Your task to perform on an android device: Clear the shopping cart on newegg.com. Add "macbook pro" to the cart on newegg.com Image 0: 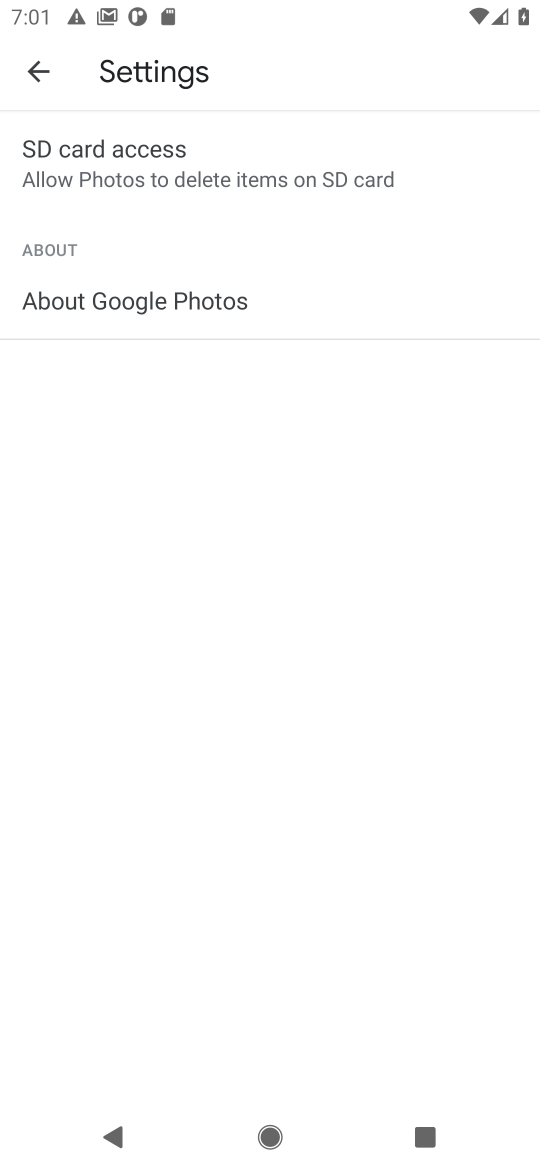
Step 0: press home button
Your task to perform on an android device: Clear the shopping cart on newegg.com. Add "macbook pro" to the cart on newegg.com Image 1: 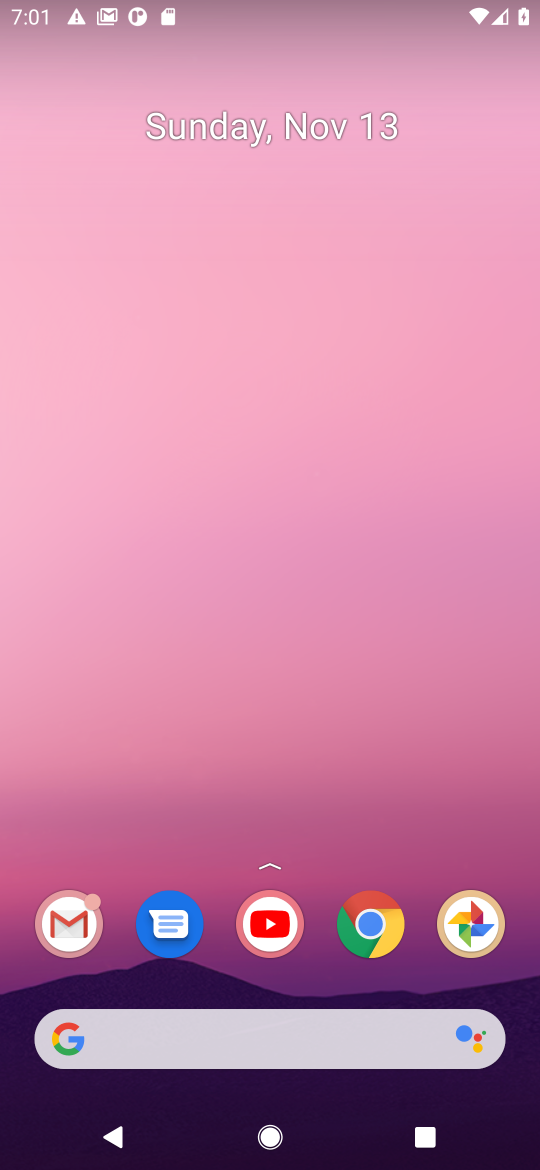
Step 1: click (373, 936)
Your task to perform on an android device: Clear the shopping cart on newegg.com. Add "macbook pro" to the cart on newegg.com Image 2: 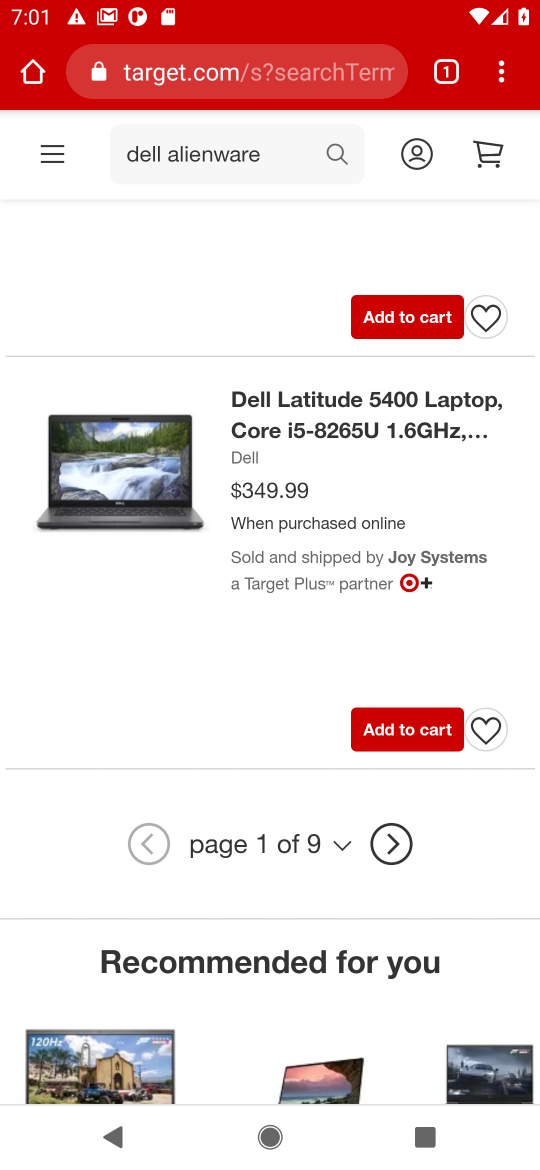
Step 2: click (219, 82)
Your task to perform on an android device: Clear the shopping cart on newegg.com. Add "macbook pro" to the cart on newegg.com Image 3: 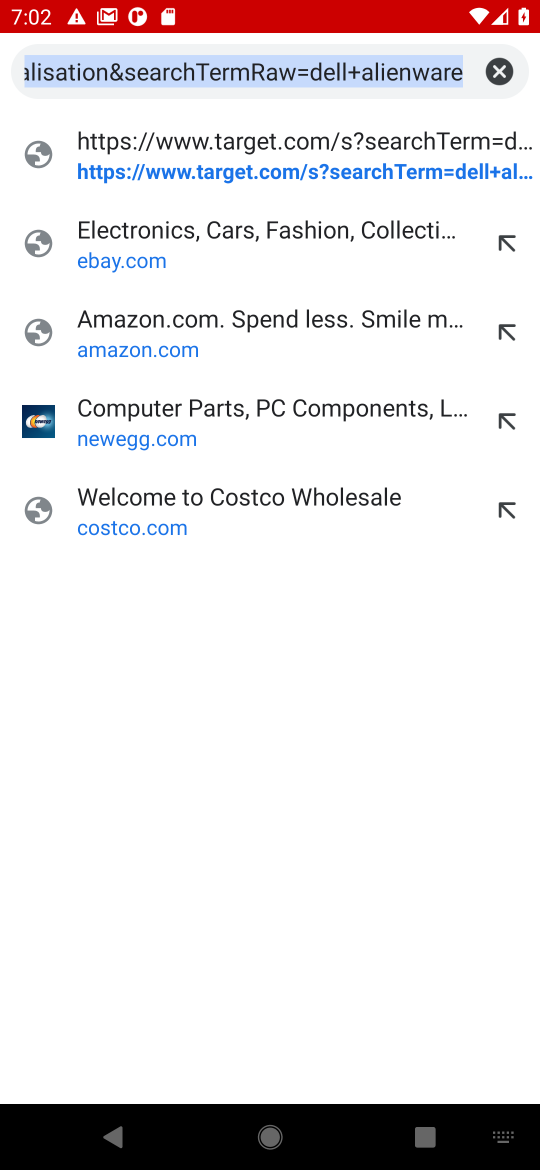
Step 3: click (120, 441)
Your task to perform on an android device: Clear the shopping cart on newegg.com. Add "macbook pro" to the cart on newegg.com Image 4: 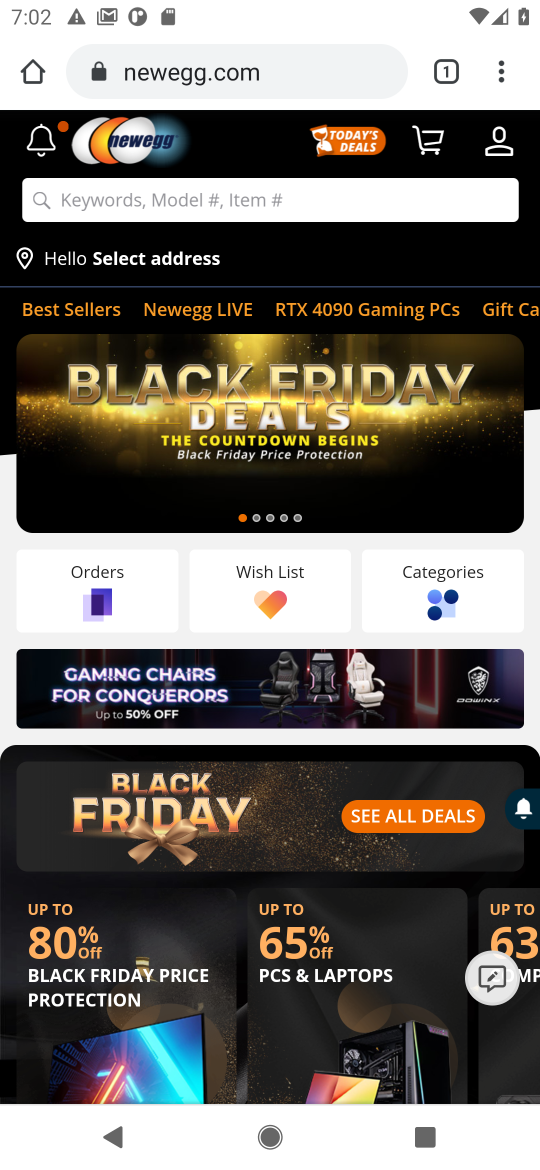
Step 4: click (429, 151)
Your task to perform on an android device: Clear the shopping cart on newegg.com. Add "macbook pro" to the cart on newegg.com Image 5: 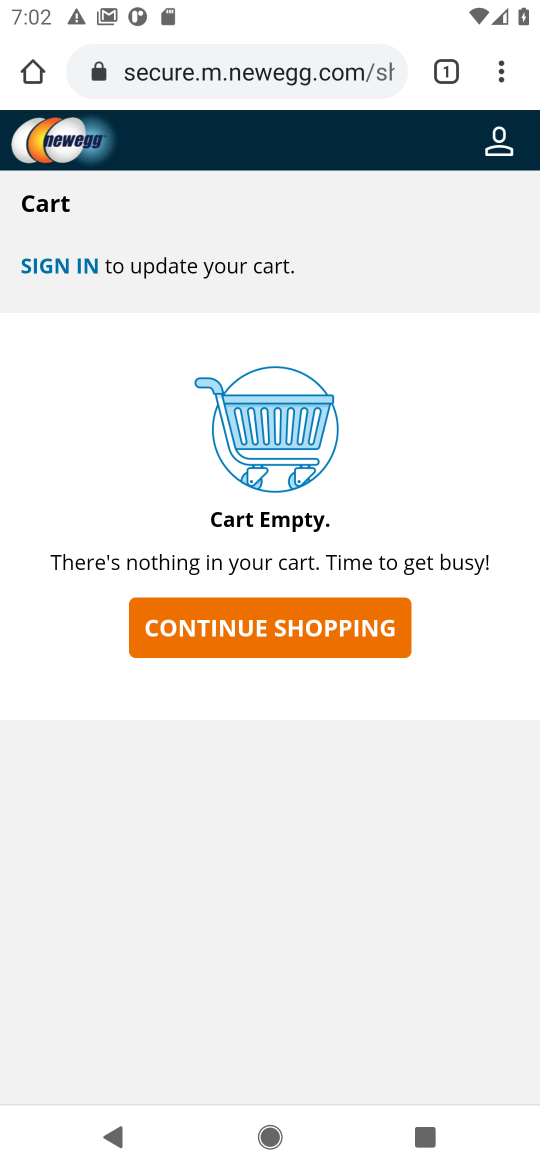
Step 5: click (251, 629)
Your task to perform on an android device: Clear the shopping cart on newegg.com. Add "macbook pro" to the cart on newegg.com Image 6: 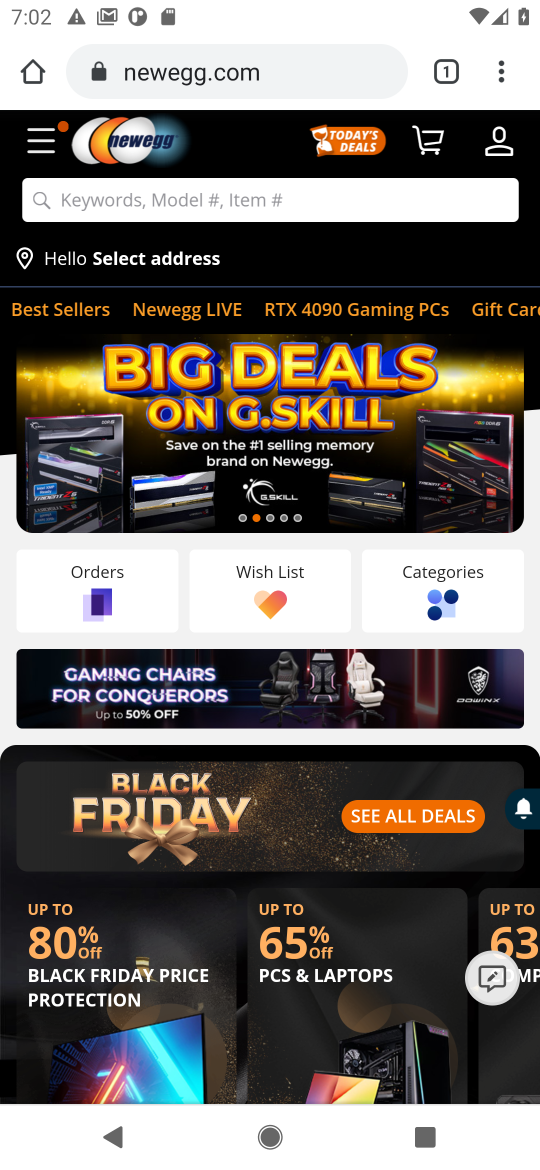
Step 6: click (133, 197)
Your task to perform on an android device: Clear the shopping cart on newegg.com. Add "macbook pro" to the cart on newegg.com Image 7: 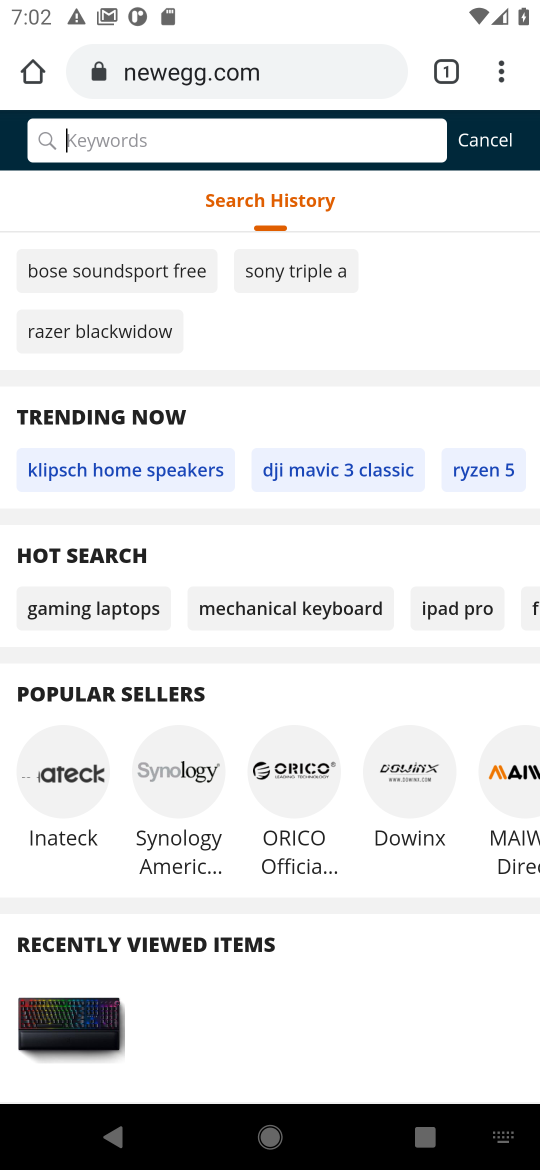
Step 7: type "macbook pro"
Your task to perform on an android device: Clear the shopping cart on newegg.com. Add "macbook pro" to the cart on newegg.com Image 8: 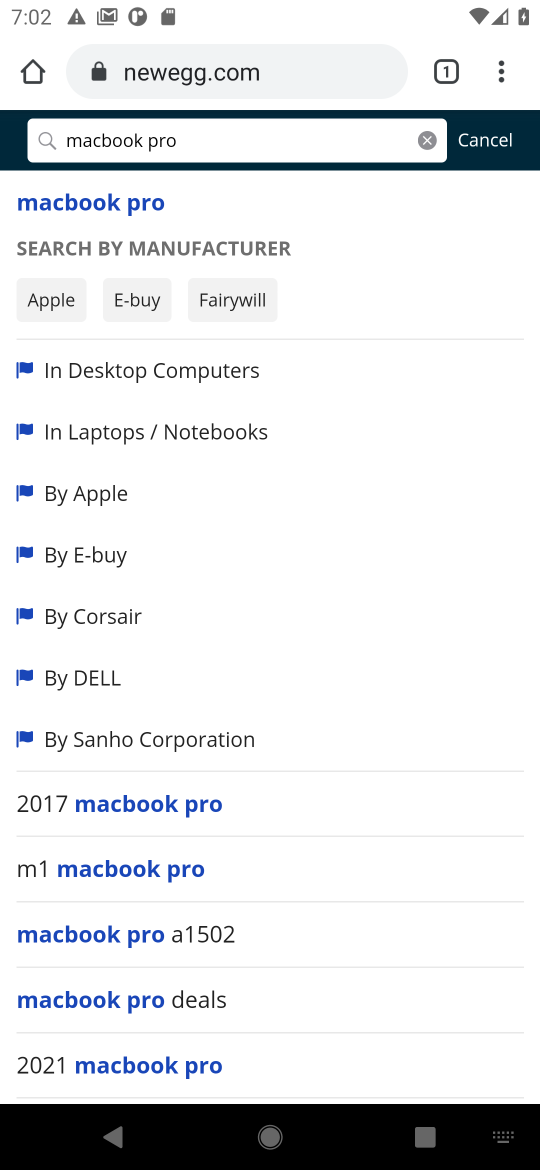
Step 8: click (108, 211)
Your task to perform on an android device: Clear the shopping cart on newegg.com. Add "macbook pro" to the cart on newegg.com Image 9: 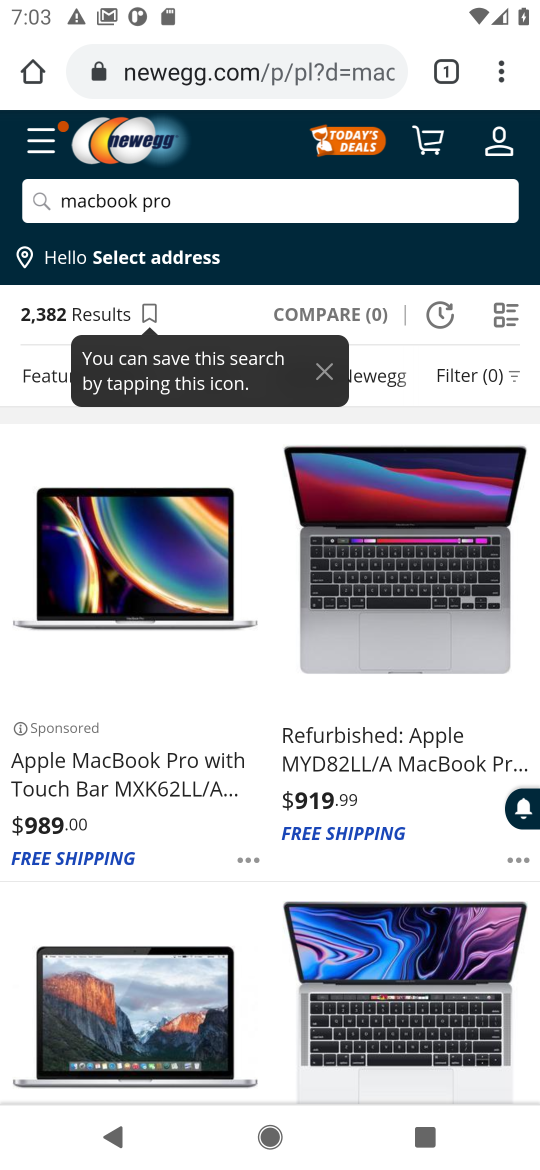
Step 9: click (114, 777)
Your task to perform on an android device: Clear the shopping cart on newegg.com. Add "macbook pro" to the cart on newegg.com Image 10: 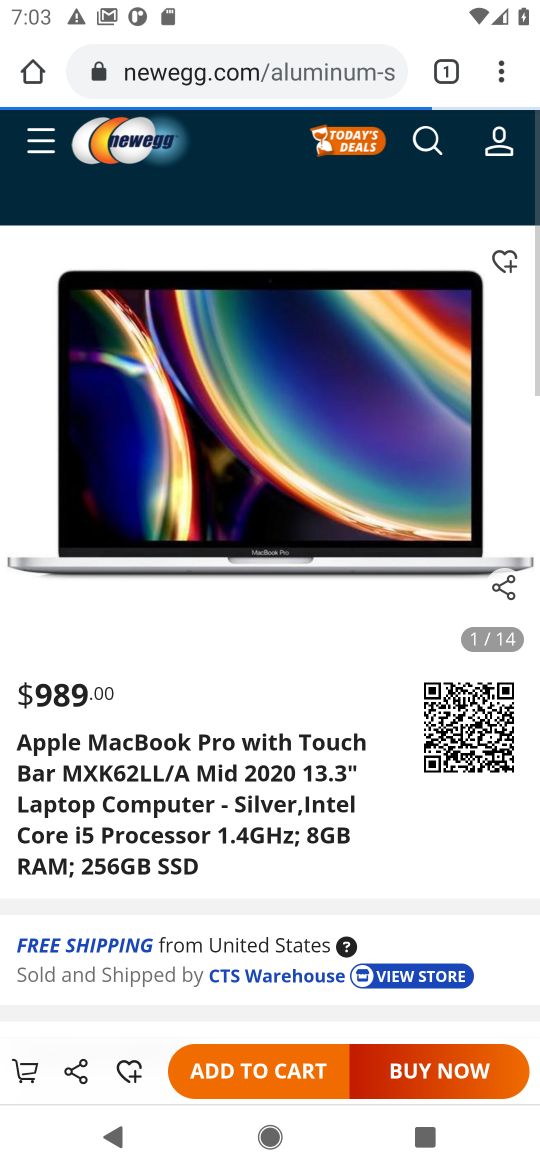
Step 10: click (110, 645)
Your task to perform on an android device: Clear the shopping cart on newegg.com. Add "macbook pro" to the cart on newegg.com Image 11: 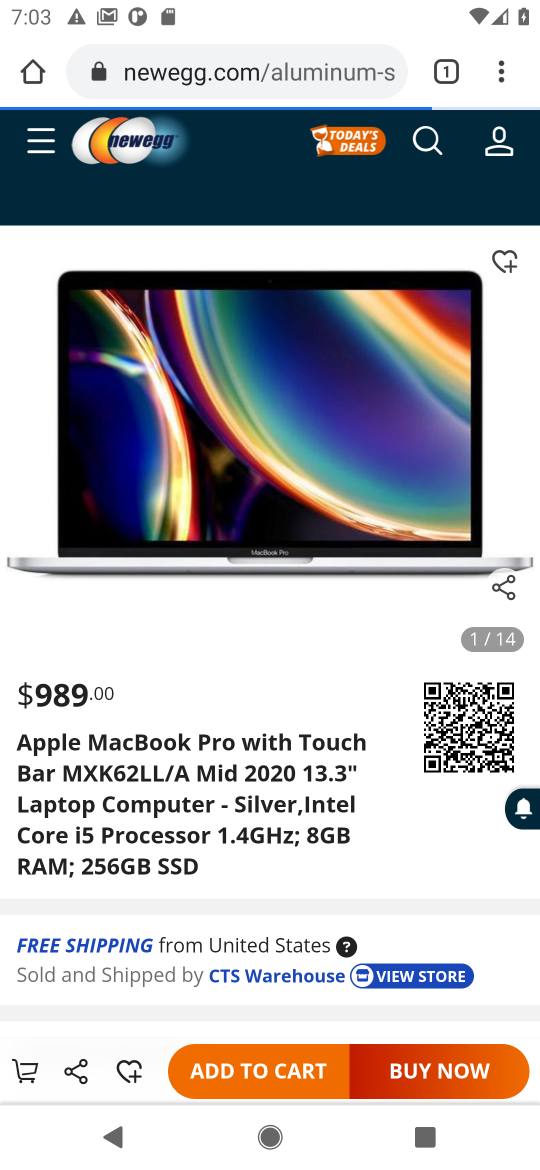
Step 11: drag from (110, 645) to (142, 493)
Your task to perform on an android device: Clear the shopping cart on newegg.com. Add "macbook pro" to the cart on newegg.com Image 12: 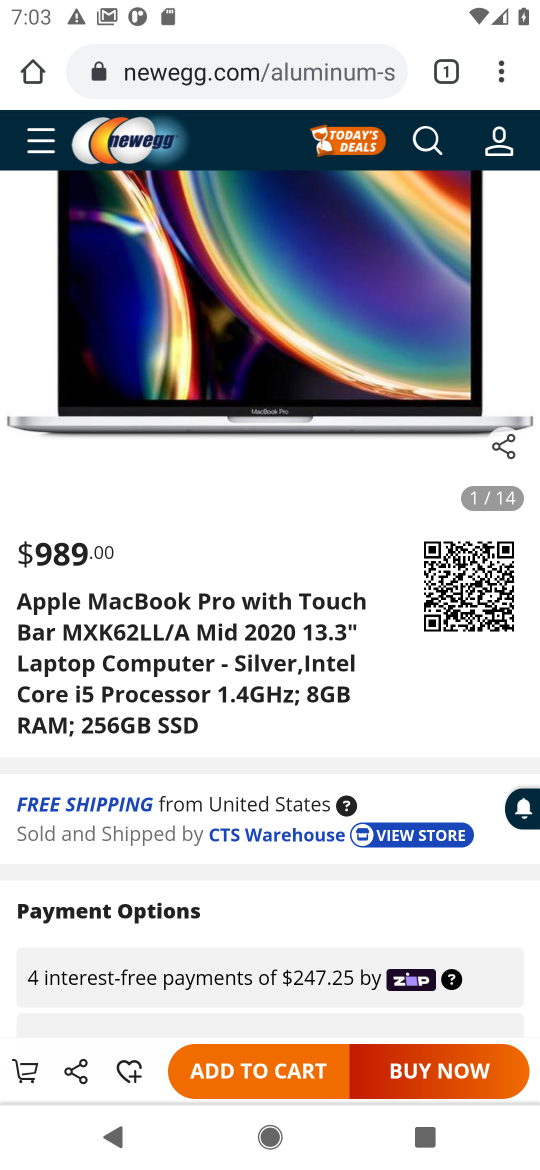
Step 12: click (284, 1070)
Your task to perform on an android device: Clear the shopping cart on newegg.com. Add "macbook pro" to the cart on newegg.com Image 13: 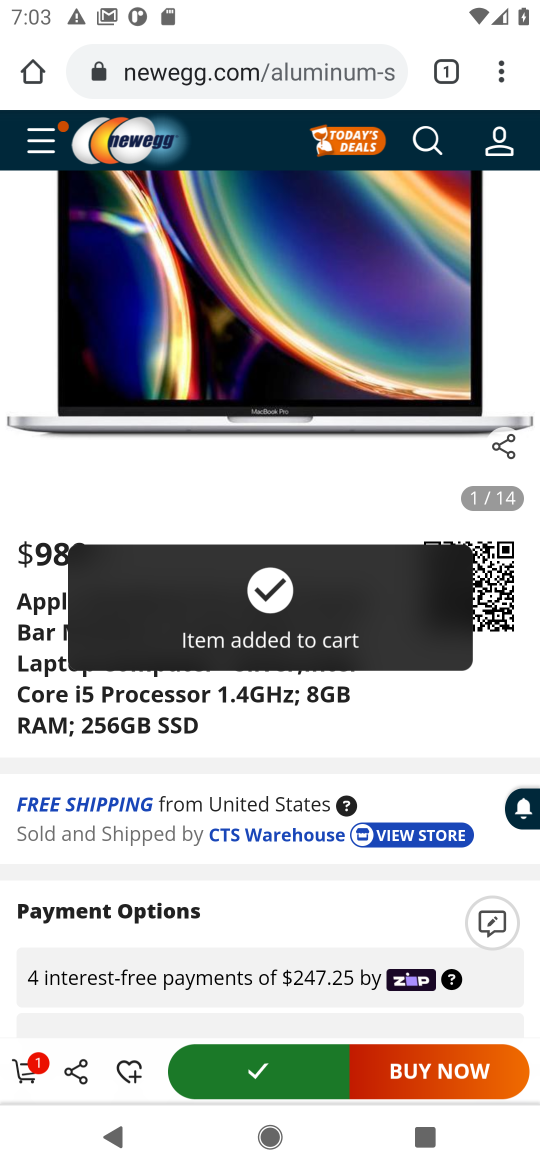
Step 13: task complete